Your task to perform on an android device: Do I have any events this weekend? Image 0: 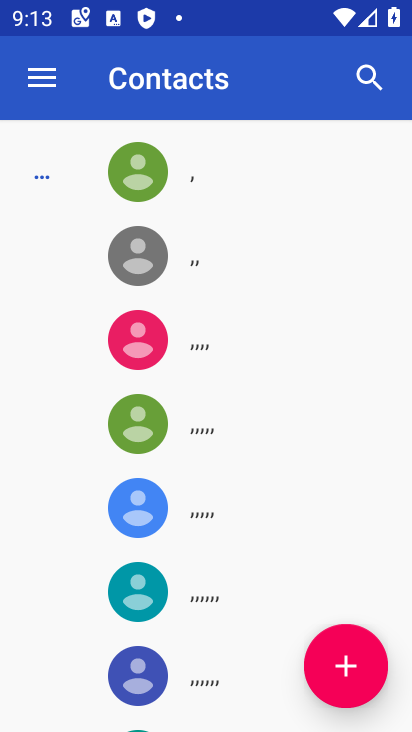
Step 0: press home button
Your task to perform on an android device: Do I have any events this weekend? Image 1: 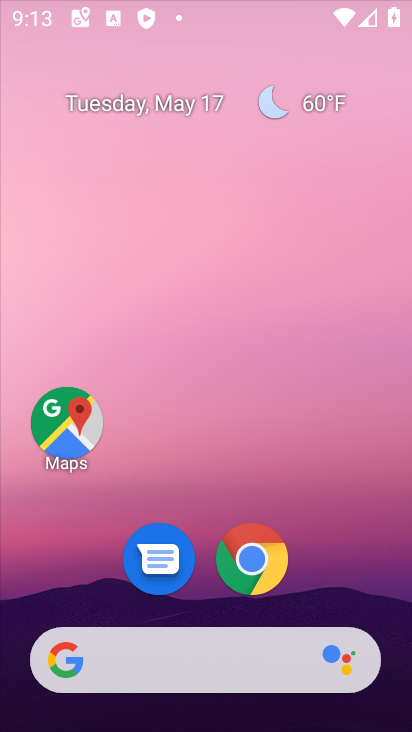
Step 1: drag from (181, 680) to (263, 193)
Your task to perform on an android device: Do I have any events this weekend? Image 2: 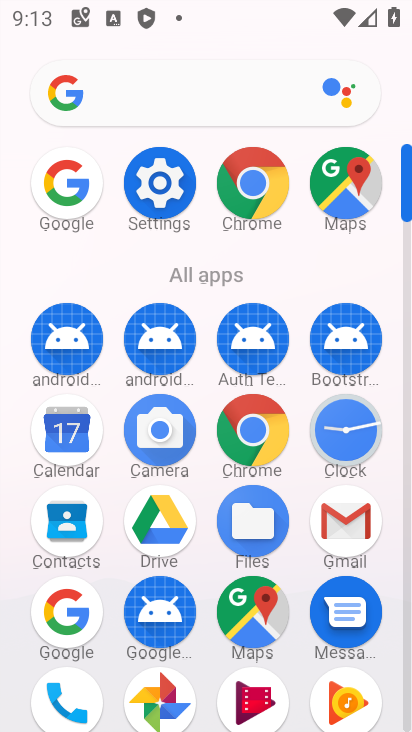
Step 2: drag from (198, 490) to (212, 369)
Your task to perform on an android device: Do I have any events this weekend? Image 3: 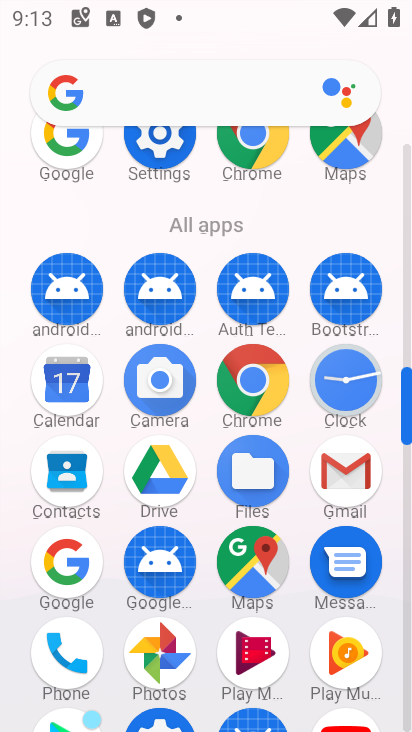
Step 3: click (66, 392)
Your task to perform on an android device: Do I have any events this weekend? Image 4: 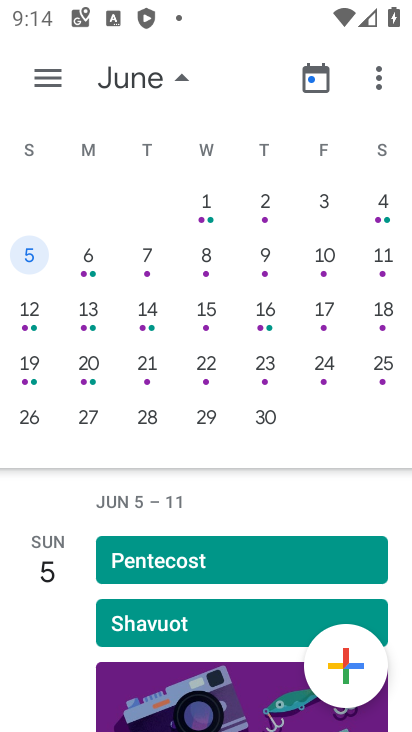
Step 4: drag from (70, 346) to (405, 294)
Your task to perform on an android device: Do I have any events this weekend? Image 5: 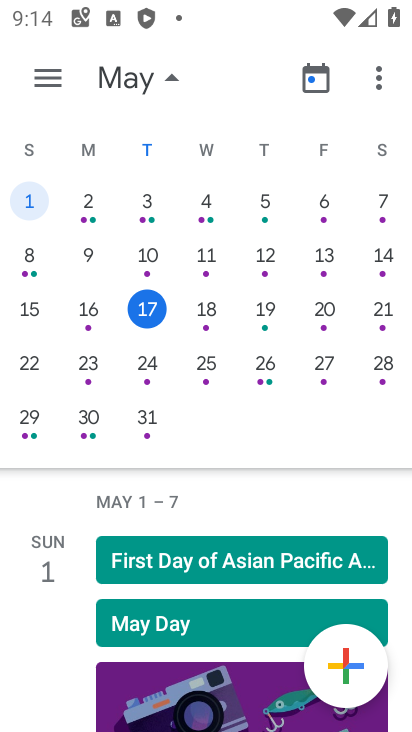
Step 5: drag from (248, 361) to (408, 331)
Your task to perform on an android device: Do I have any events this weekend? Image 6: 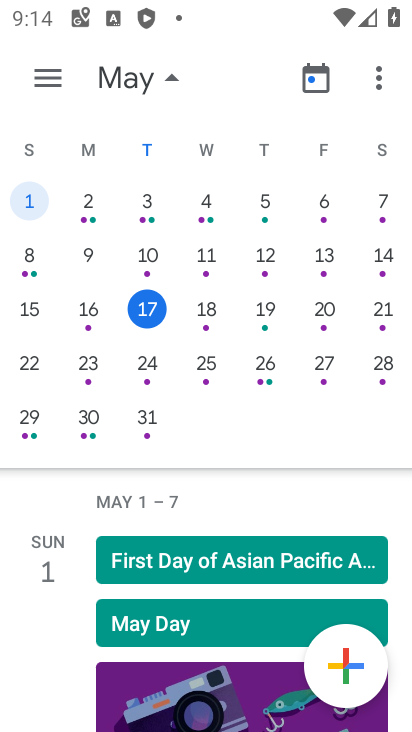
Step 6: click (379, 324)
Your task to perform on an android device: Do I have any events this weekend? Image 7: 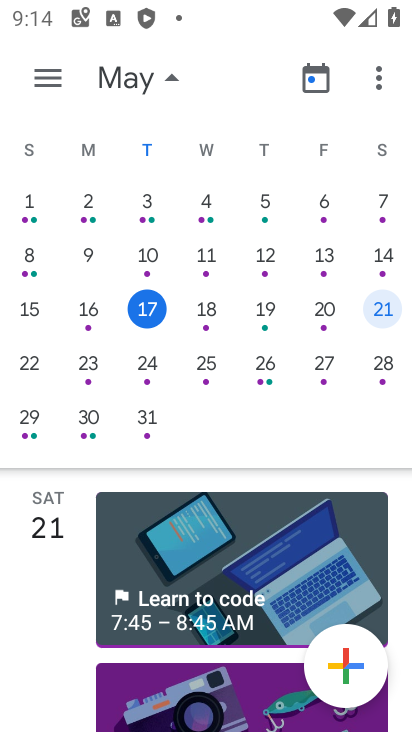
Step 7: task complete